Your task to perform on an android device: What is the recent news? Image 0: 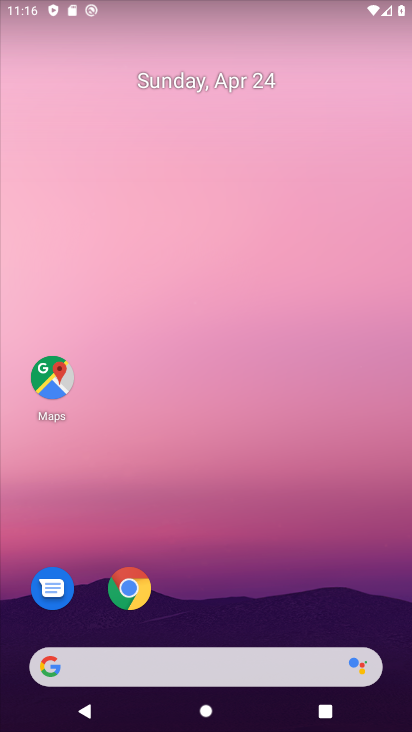
Step 0: click (232, 663)
Your task to perform on an android device: What is the recent news? Image 1: 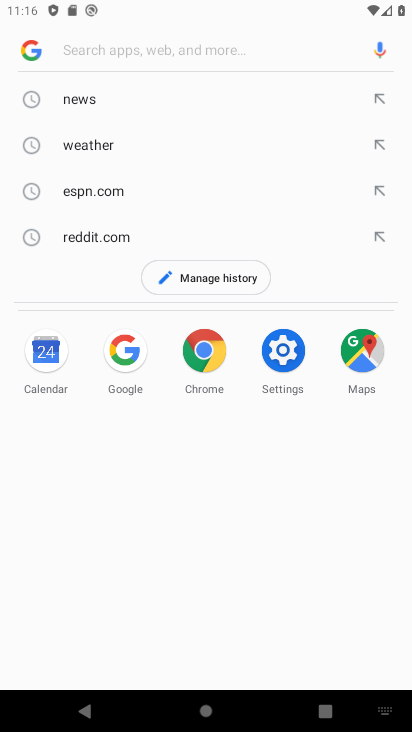
Step 1: type "recent news"
Your task to perform on an android device: What is the recent news? Image 2: 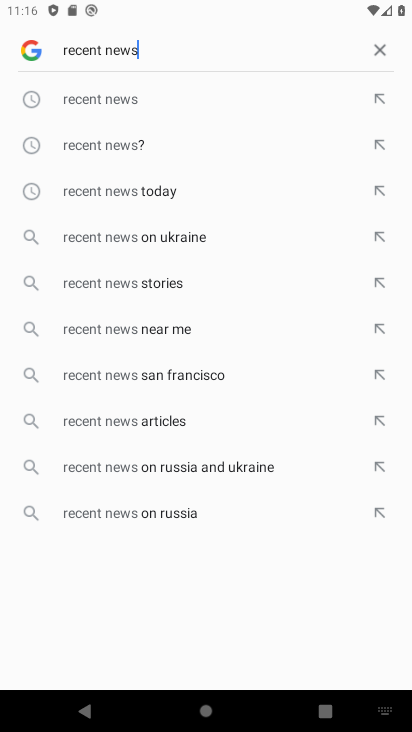
Step 2: click (135, 93)
Your task to perform on an android device: What is the recent news? Image 3: 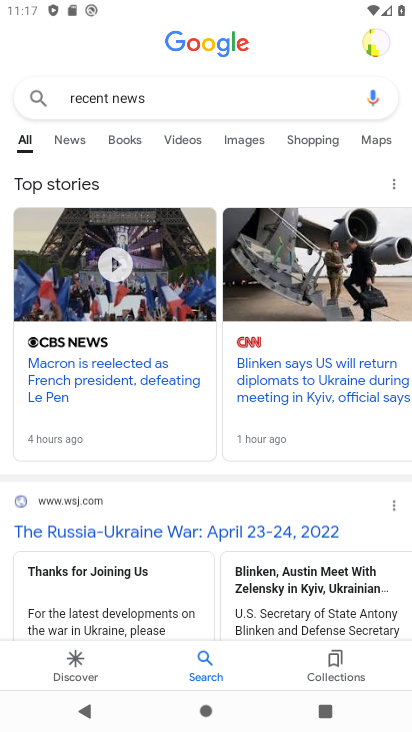
Step 3: task complete